Your task to perform on an android device: clear history in the chrome app Image 0: 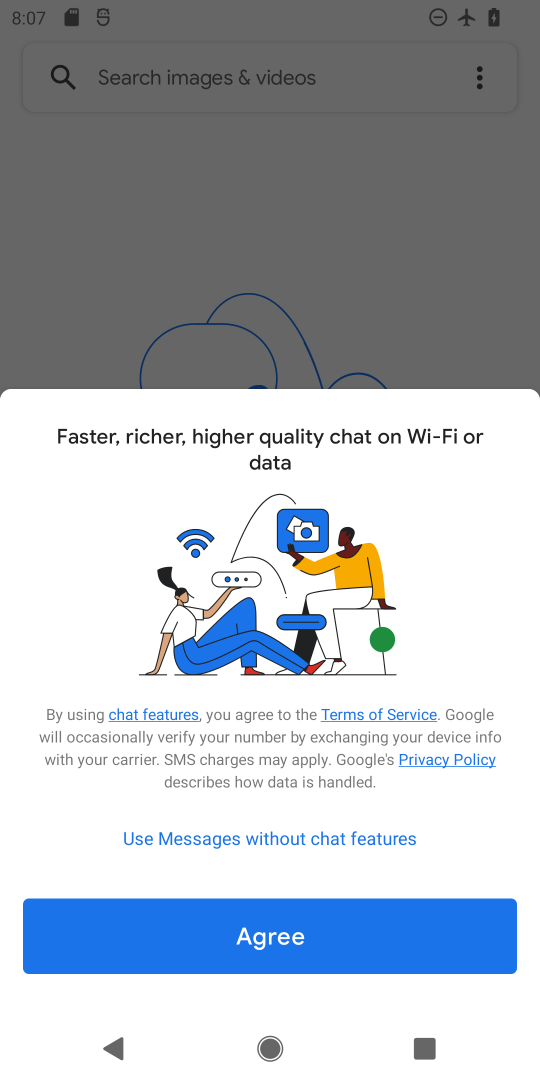
Step 0: press back button
Your task to perform on an android device: clear history in the chrome app Image 1: 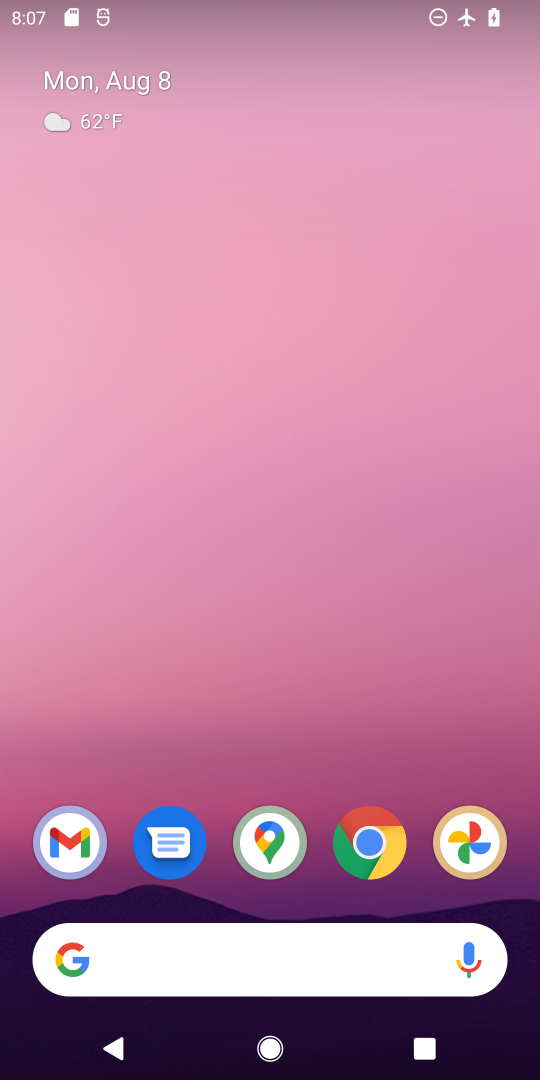
Step 1: click (369, 841)
Your task to perform on an android device: clear history in the chrome app Image 2: 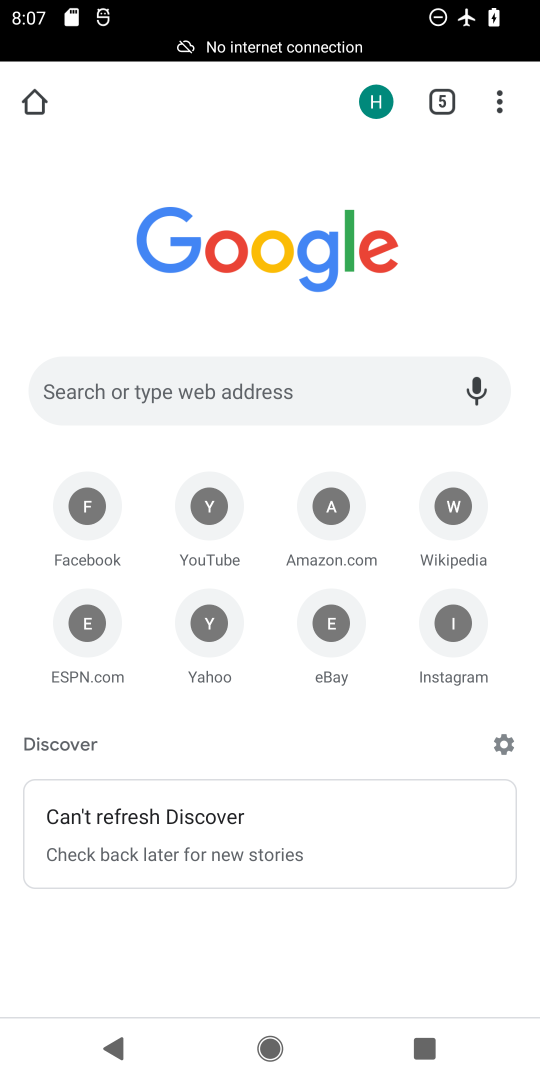
Step 2: drag from (505, 109) to (261, 774)
Your task to perform on an android device: clear history in the chrome app Image 3: 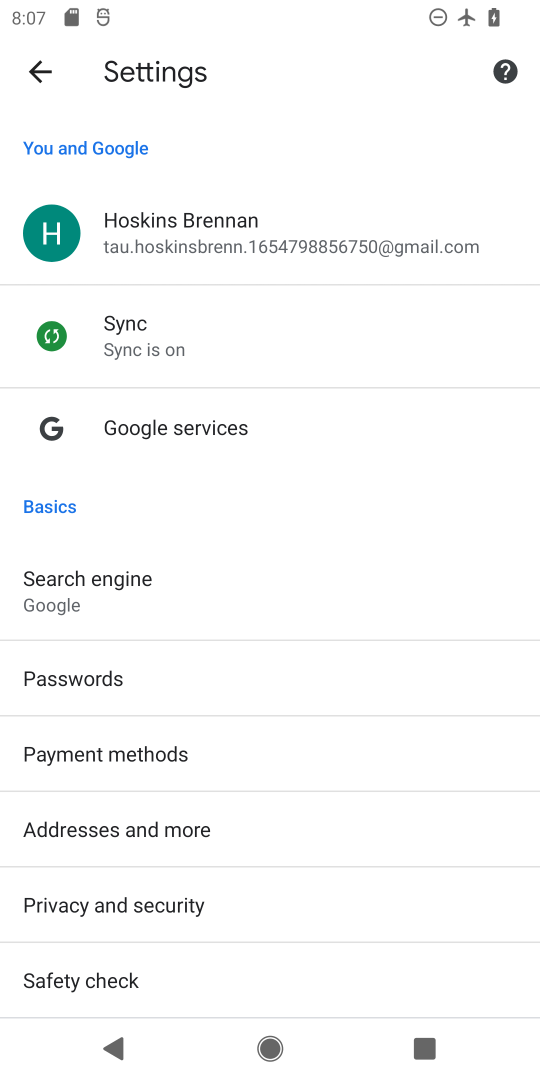
Step 3: drag from (145, 670) to (145, 158)
Your task to perform on an android device: clear history in the chrome app Image 4: 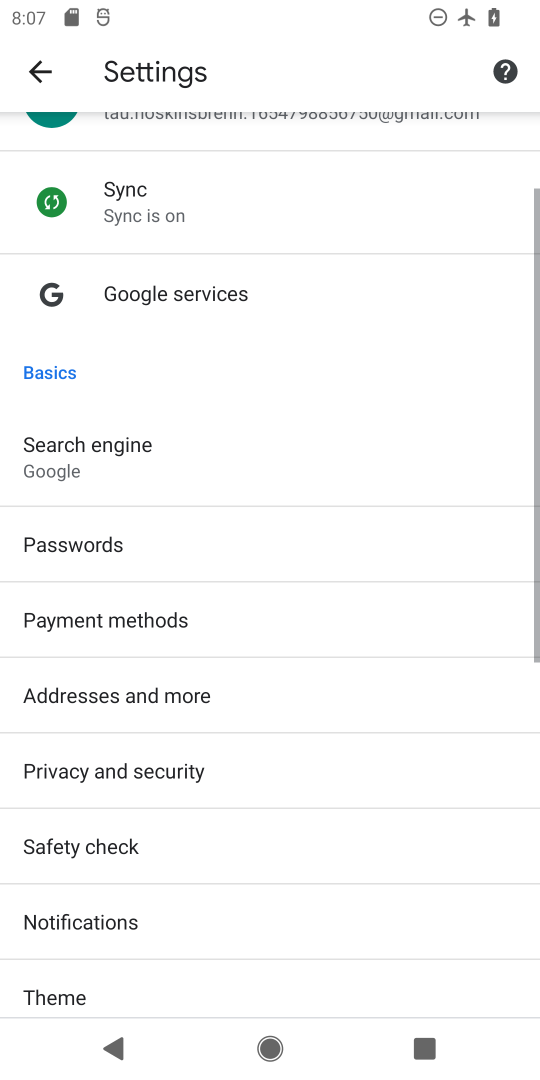
Step 4: drag from (228, 823) to (221, 244)
Your task to perform on an android device: clear history in the chrome app Image 5: 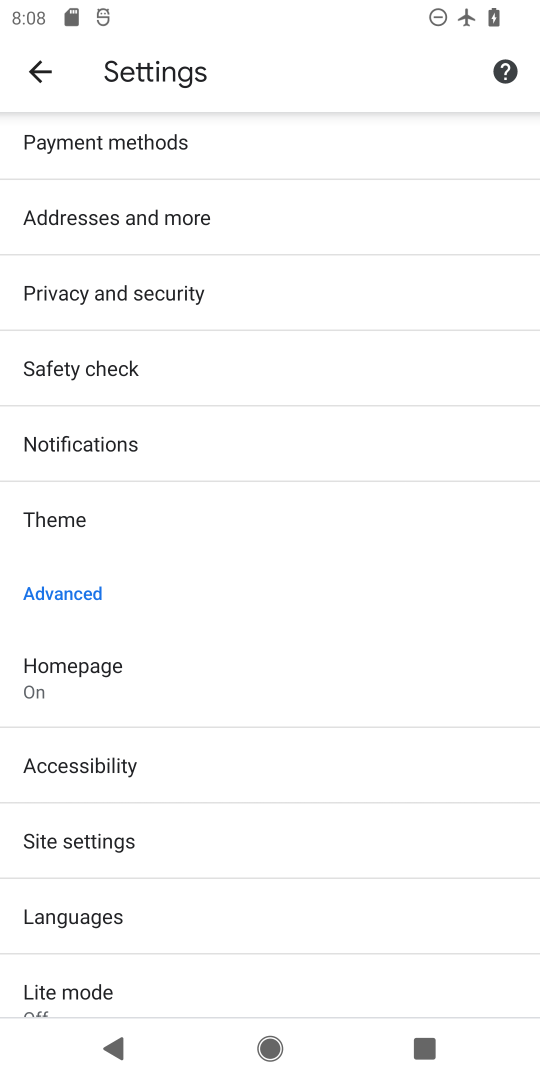
Step 5: drag from (247, 830) to (238, 307)
Your task to perform on an android device: clear history in the chrome app Image 6: 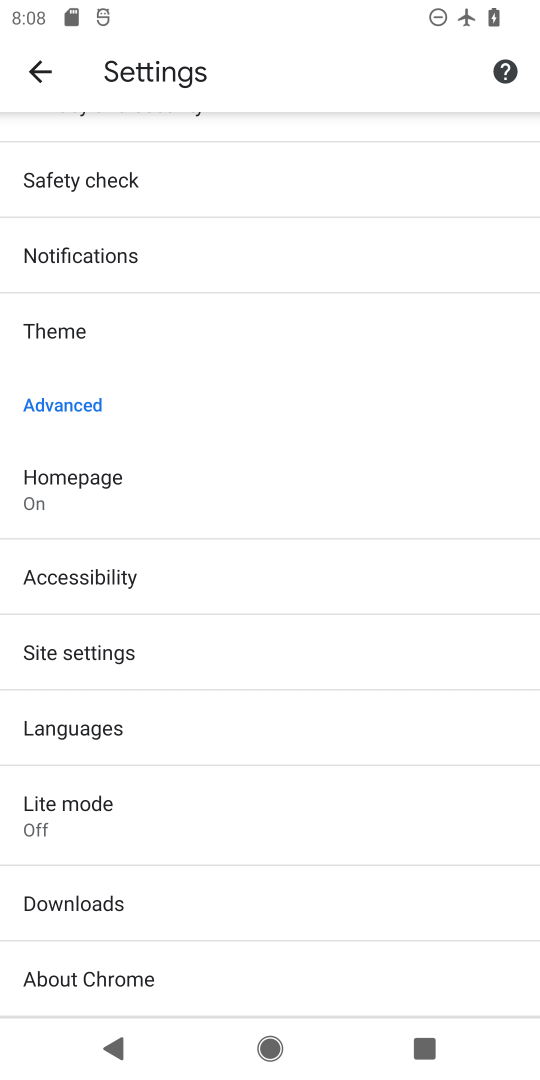
Step 6: drag from (108, 231) to (148, 693)
Your task to perform on an android device: clear history in the chrome app Image 7: 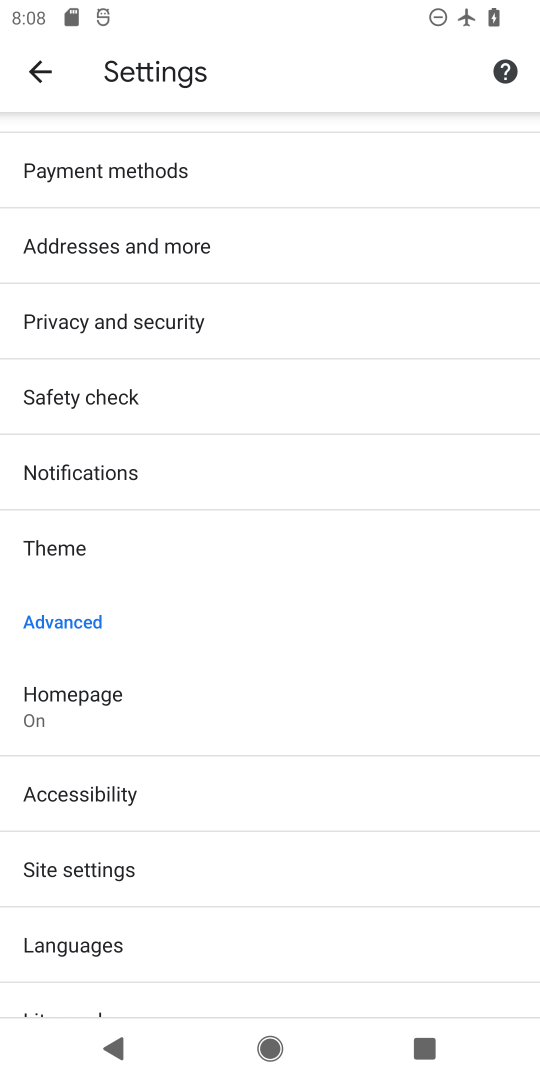
Step 7: click (116, 344)
Your task to perform on an android device: clear history in the chrome app Image 8: 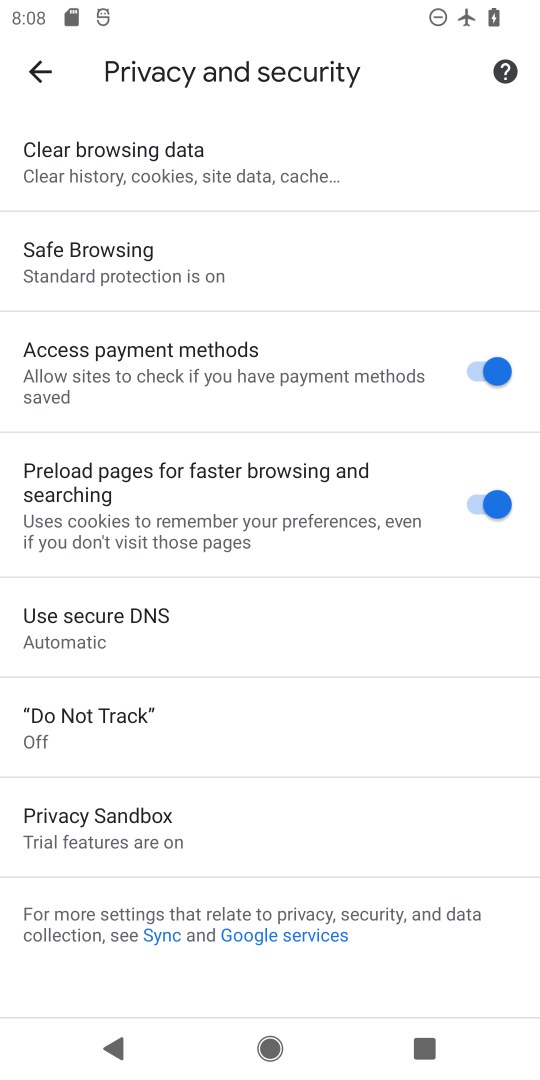
Step 8: click (134, 177)
Your task to perform on an android device: clear history in the chrome app Image 9: 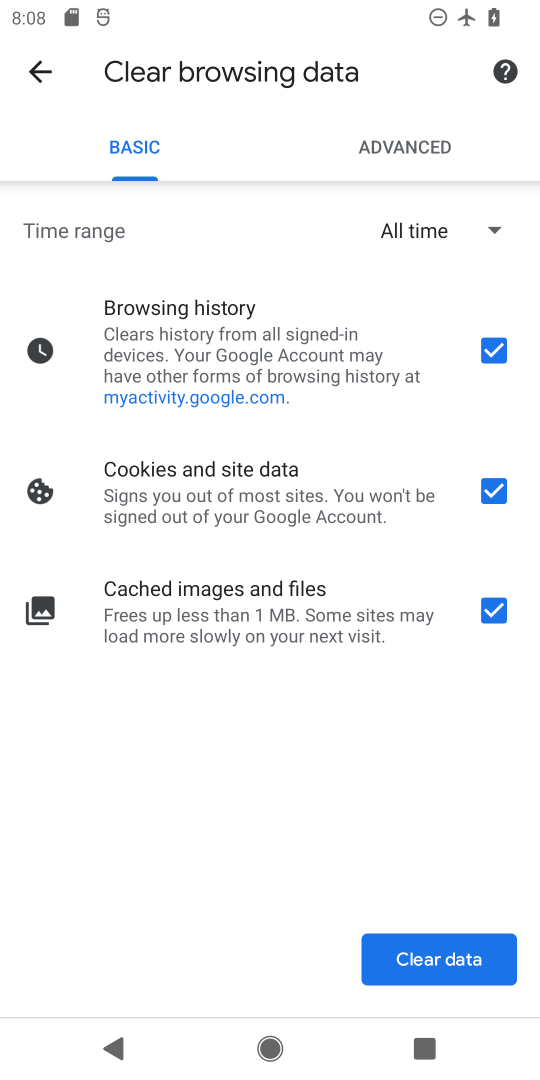
Step 9: click (474, 974)
Your task to perform on an android device: clear history in the chrome app Image 10: 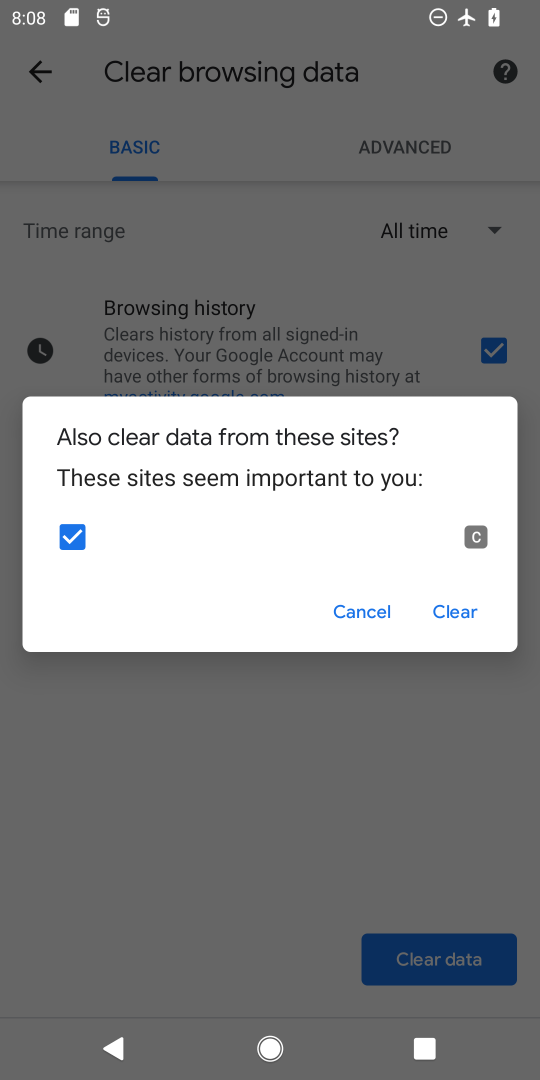
Step 10: click (438, 617)
Your task to perform on an android device: clear history in the chrome app Image 11: 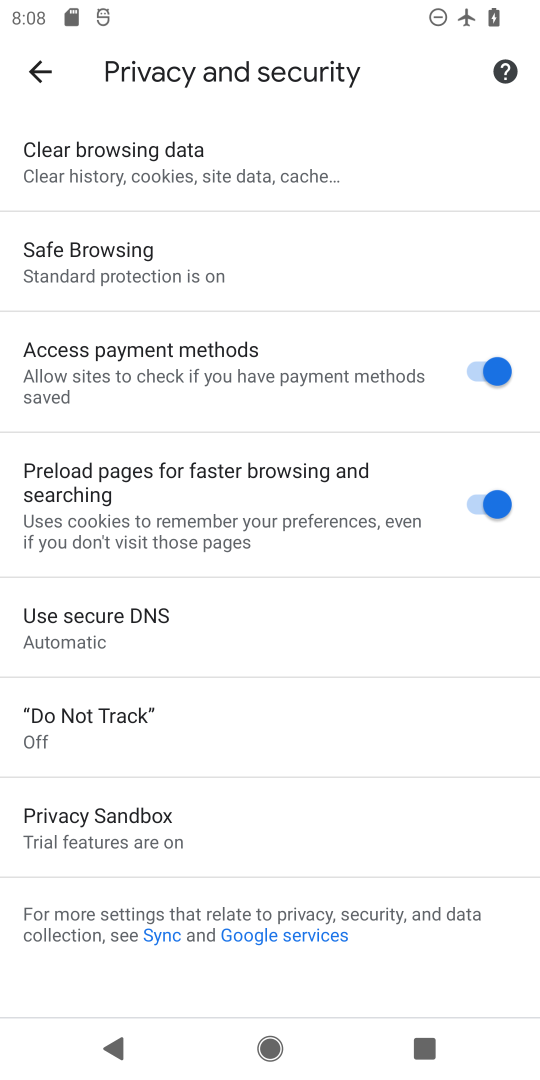
Step 11: task complete